Your task to perform on an android device: Go to settings Image 0: 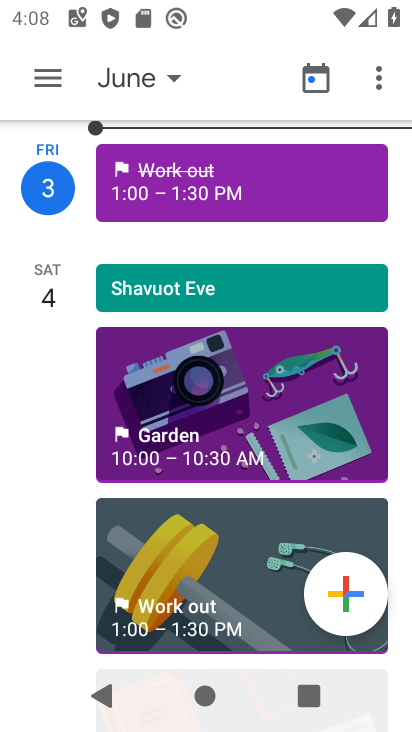
Step 0: drag from (196, 498) to (223, 122)
Your task to perform on an android device: Go to settings Image 1: 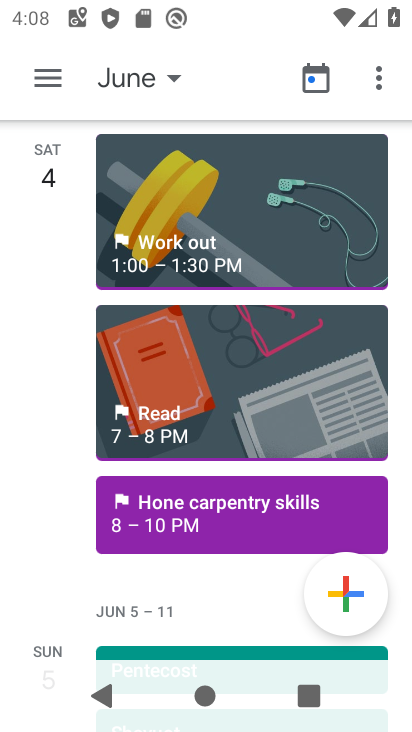
Step 1: drag from (207, 227) to (304, 701)
Your task to perform on an android device: Go to settings Image 2: 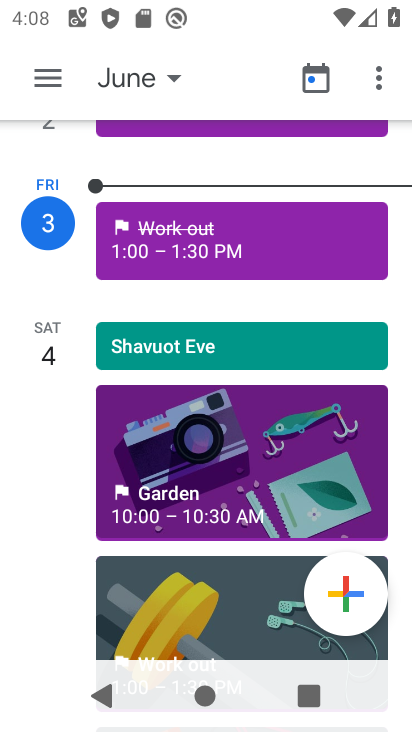
Step 2: click (130, 71)
Your task to perform on an android device: Go to settings Image 3: 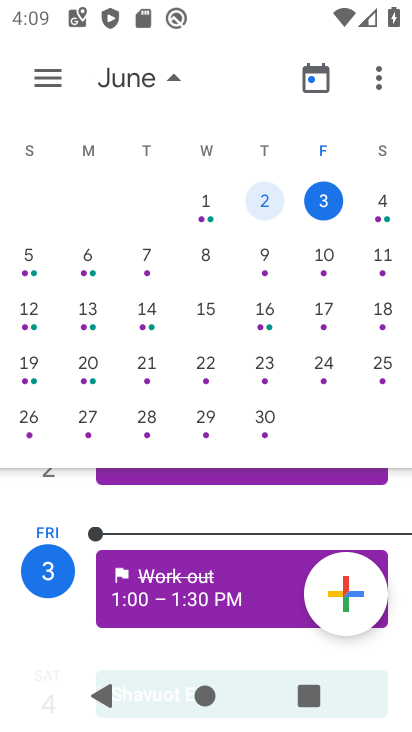
Step 3: press home button
Your task to perform on an android device: Go to settings Image 4: 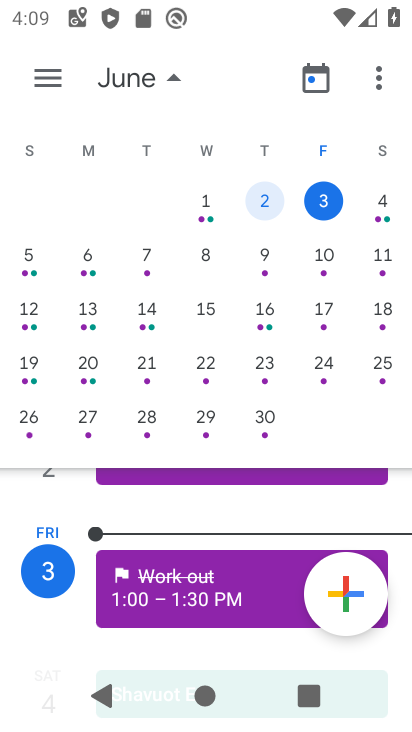
Step 4: press home button
Your task to perform on an android device: Go to settings Image 5: 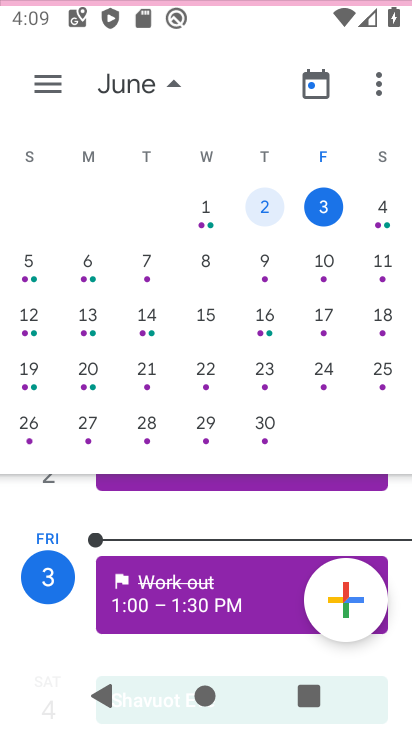
Step 5: drag from (215, 273) to (193, 5)
Your task to perform on an android device: Go to settings Image 6: 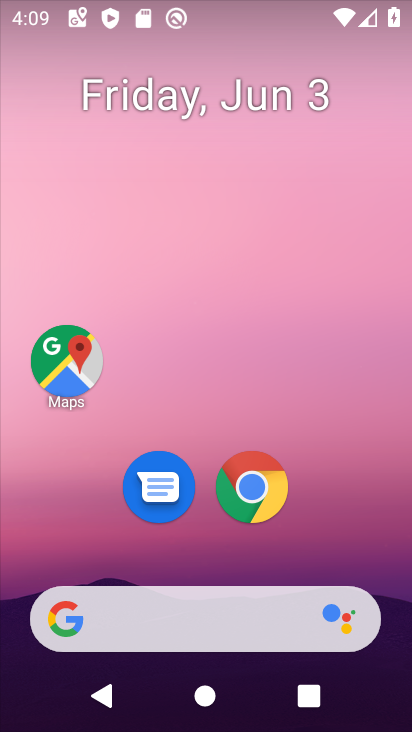
Step 6: drag from (192, 520) to (208, 5)
Your task to perform on an android device: Go to settings Image 7: 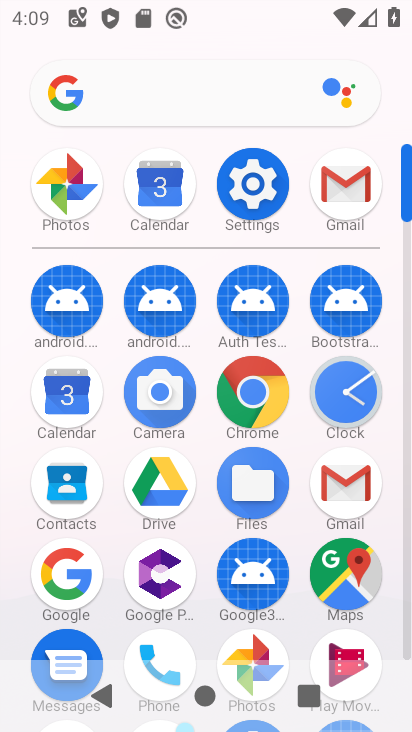
Step 7: click (246, 209)
Your task to perform on an android device: Go to settings Image 8: 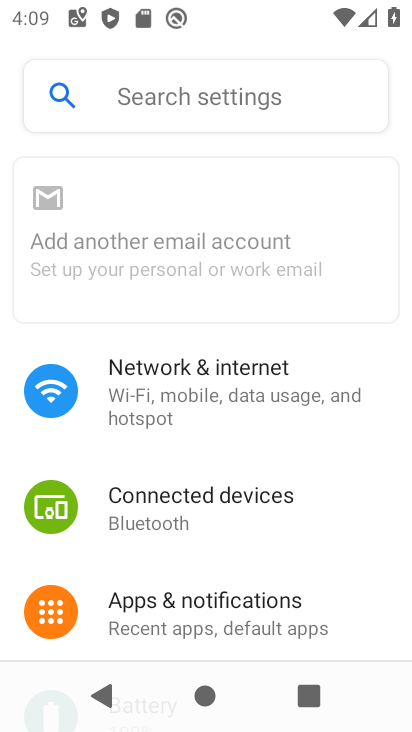
Step 8: task complete